Your task to perform on an android device: Open sound settings Image 0: 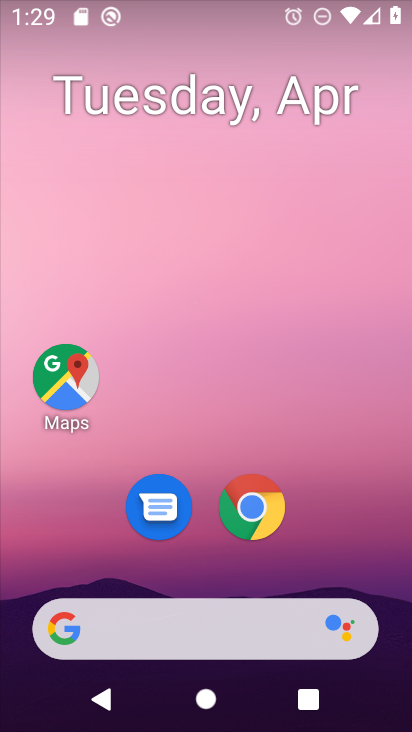
Step 0: drag from (333, 541) to (258, 233)
Your task to perform on an android device: Open sound settings Image 1: 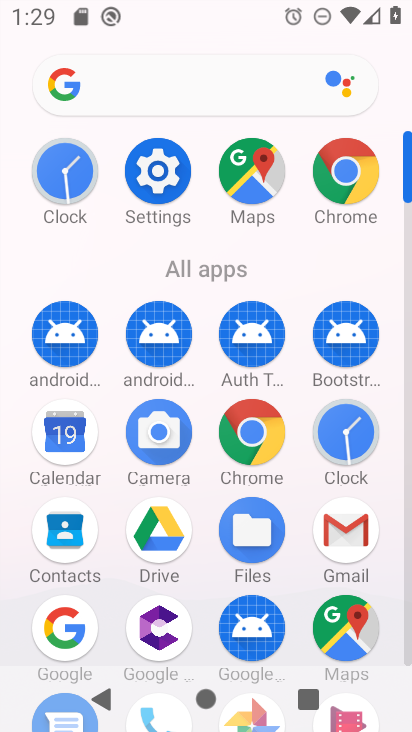
Step 1: click (146, 171)
Your task to perform on an android device: Open sound settings Image 2: 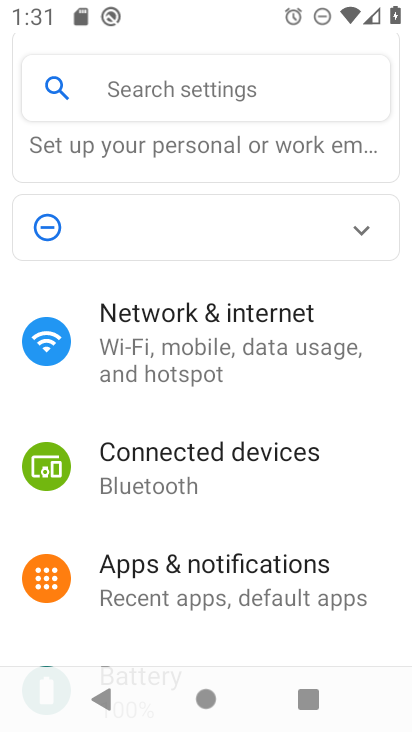
Step 2: drag from (250, 616) to (290, 254)
Your task to perform on an android device: Open sound settings Image 3: 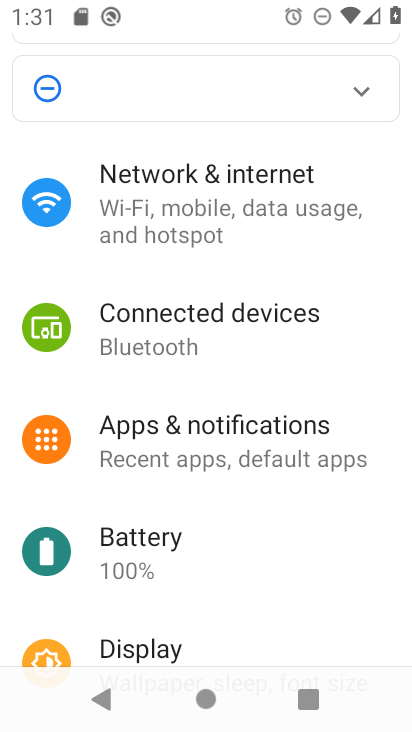
Step 3: drag from (236, 576) to (306, 259)
Your task to perform on an android device: Open sound settings Image 4: 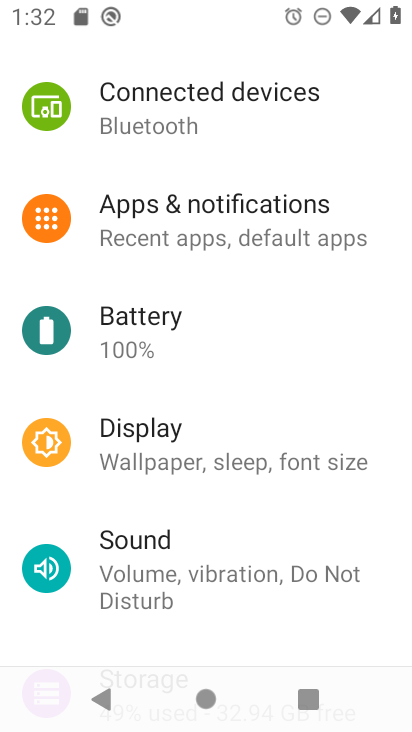
Step 4: click (202, 552)
Your task to perform on an android device: Open sound settings Image 5: 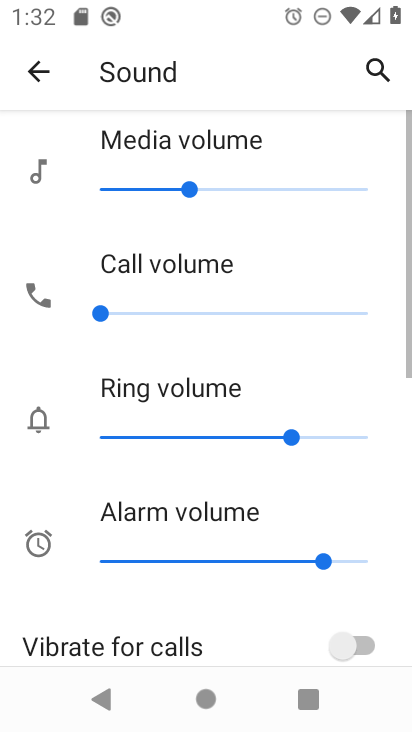
Step 5: task complete